Your task to perform on an android device: Open sound settings Image 0: 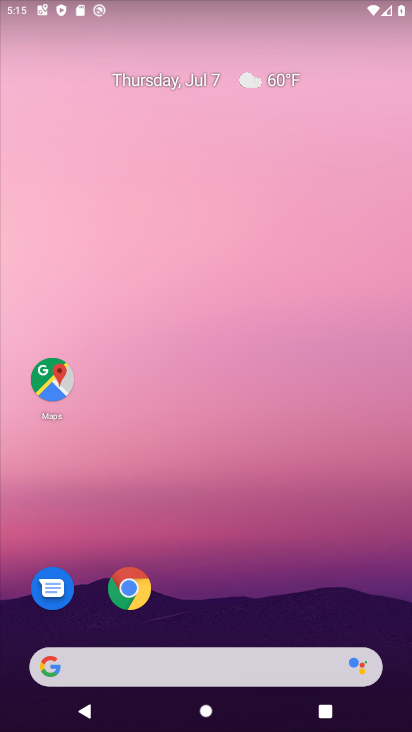
Step 0: click (117, 670)
Your task to perform on an android device: Open sound settings Image 1: 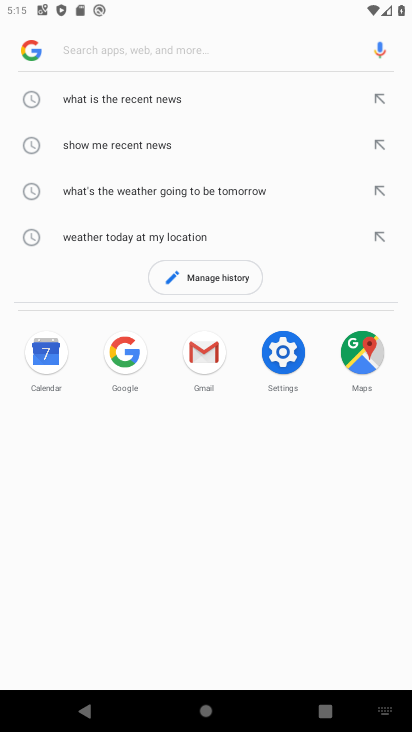
Step 1: press back button
Your task to perform on an android device: Open sound settings Image 2: 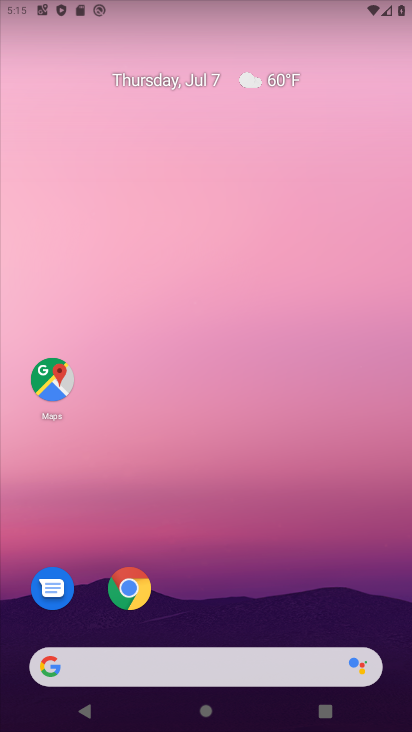
Step 2: press back button
Your task to perform on an android device: Open sound settings Image 3: 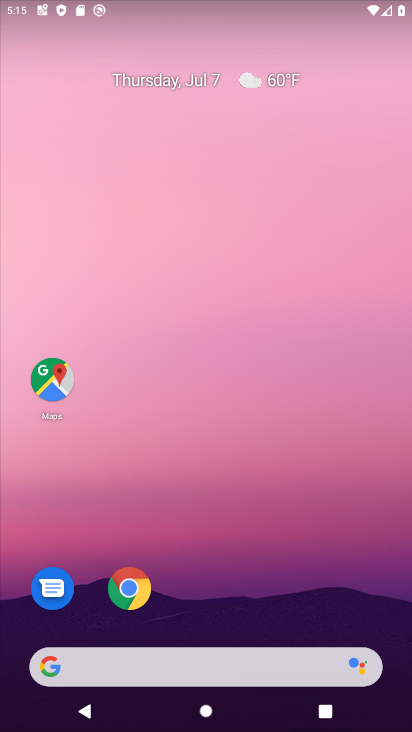
Step 3: drag from (212, 522) to (266, 7)
Your task to perform on an android device: Open sound settings Image 4: 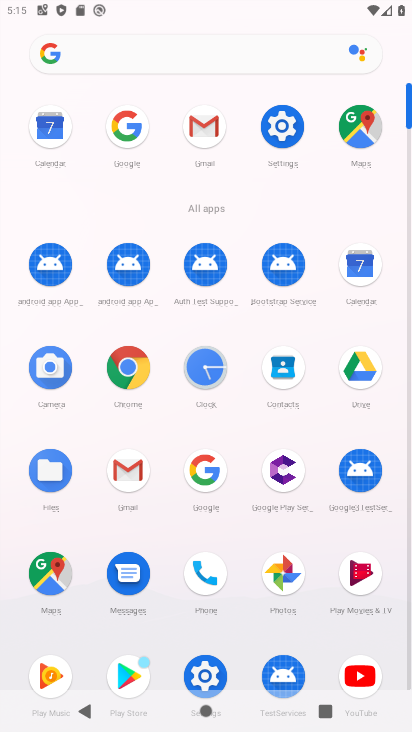
Step 4: click (272, 103)
Your task to perform on an android device: Open sound settings Image 5: 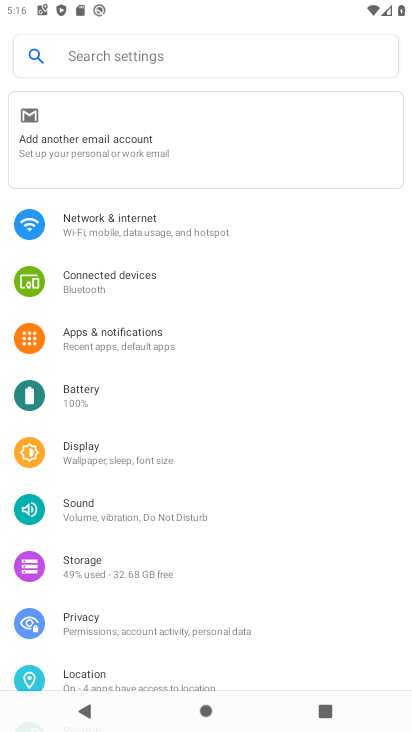
Step 5: click (83, 519)
Your task to perform on an android device: Open sound settings Image 6: 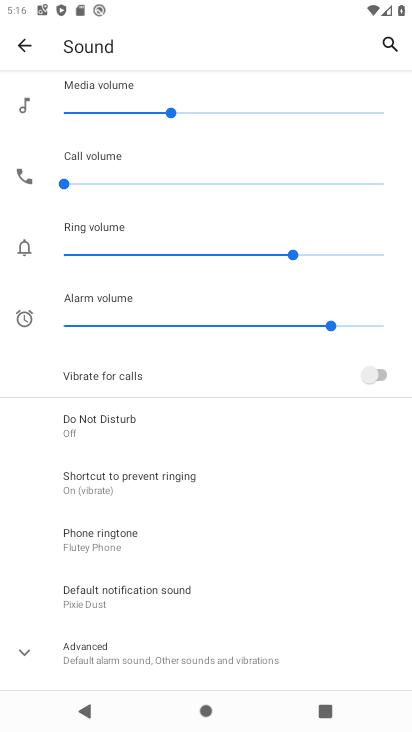
Step 6: task complete